Your task to perform on an android device: Is it going to rain tomorrow? Image 0: 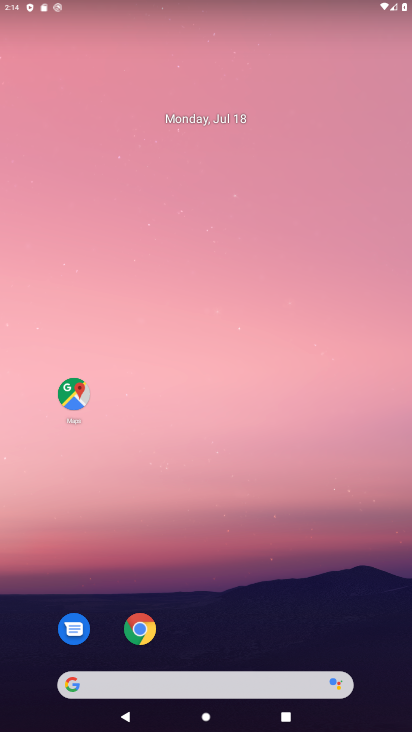
Step 0: click (182, 689)
Your task to perform on an android device: Is it going to rain tomorrow? Image 1: 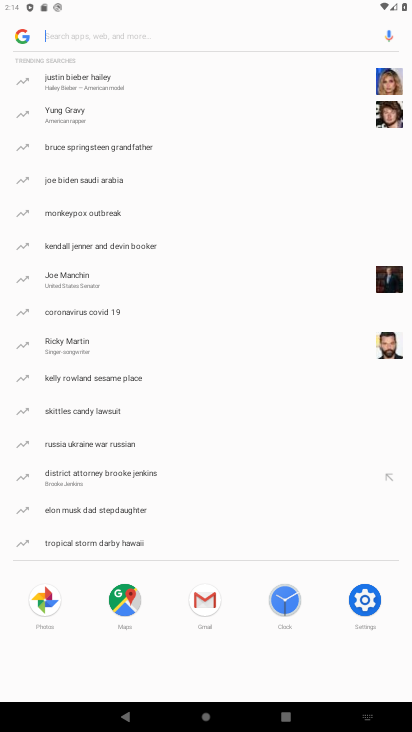
Step 1: type "rain tomorrow?"
Your task to perform on an android device: Is it going to rain tomorrow? Image 2: 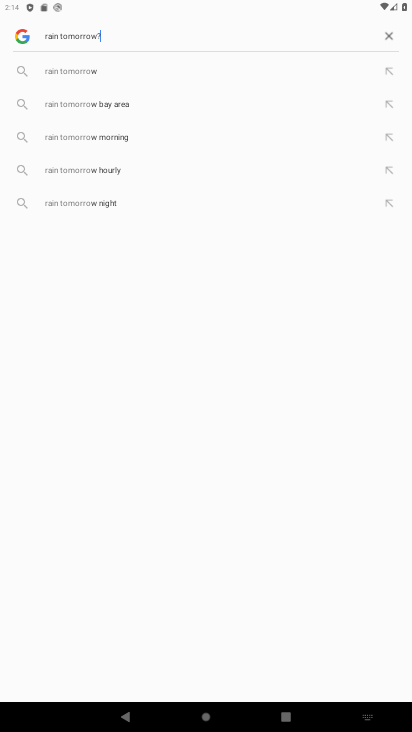
Step 2: type ""
Your task to perform on an android device: Is it going to rain tomorrow? Image 3: 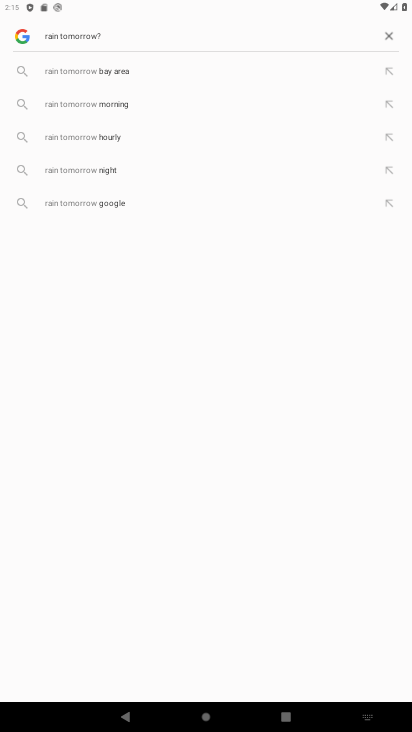
Step 3: click (85, 68)
Your task to perform on an android device: Is it going to rain tomorrow? Image 4: 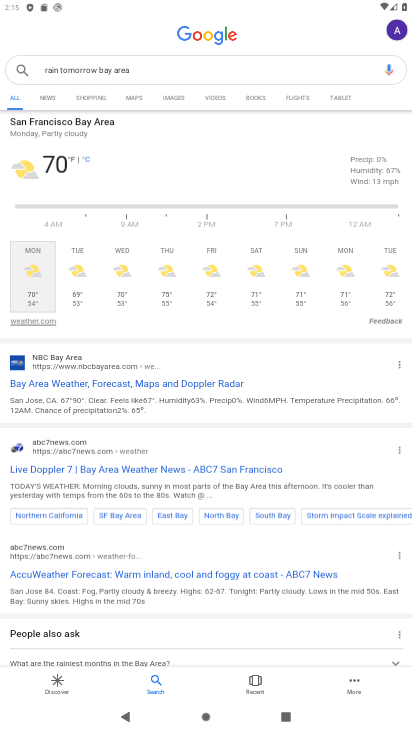
Step 4: click (63, 279)
Your task to perform on an android device: Is it going to rain tomorrow? Image 5: 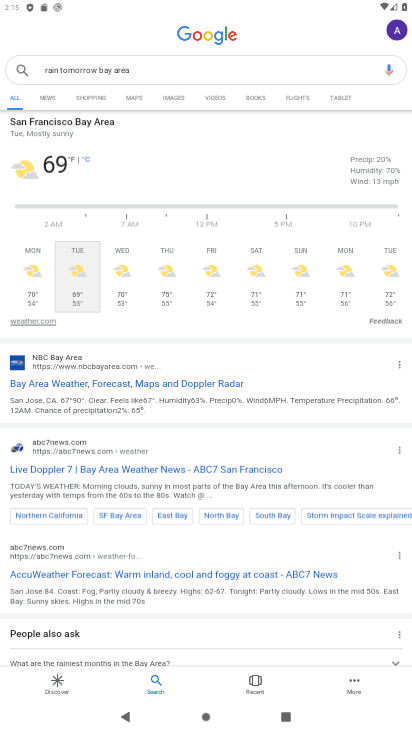
Step 5: task complete